Your task to perform on an android device: open app "Cash App" Image 0: 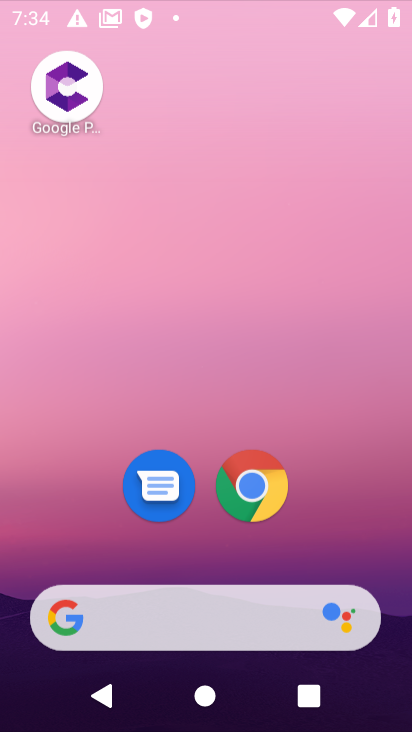
Step 0: press home button
Your task to perform on an android device: open app "Cash App" Image 1: 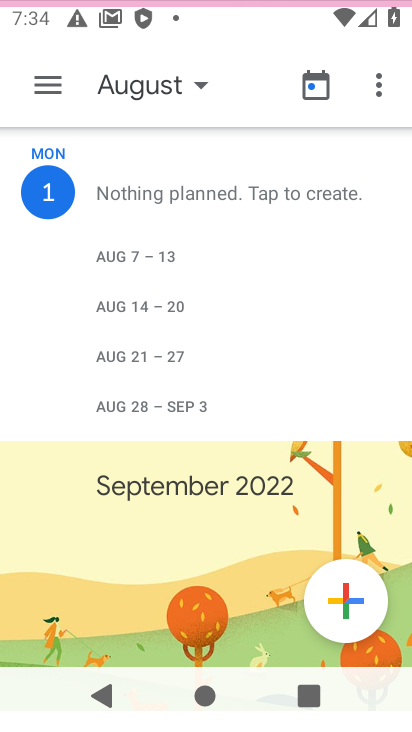
Step 1: drag from (348, 301) to (356, 156)
Your task to perform on an android device: open app "Cash App" Image 2: 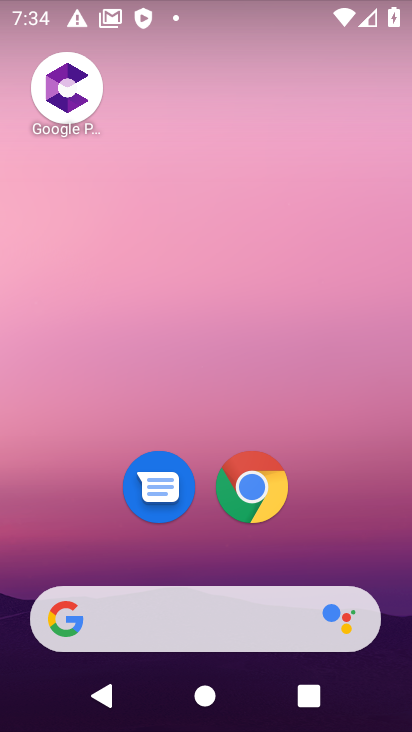
Step 2: drag from (348, 521) to (316, 52)
Your task to perform on an android device: open app "Cash App" Image 3: 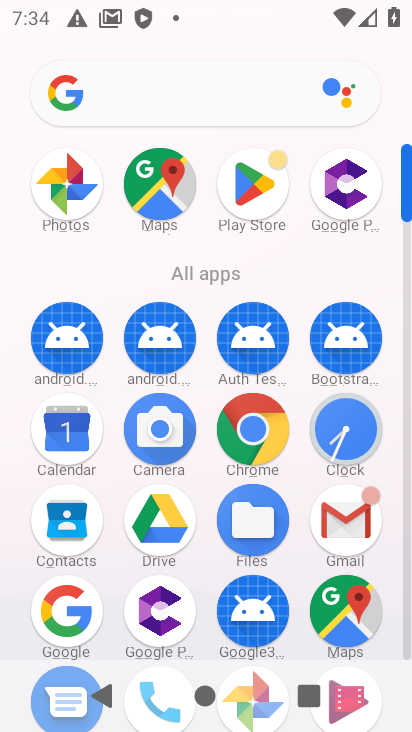
Step 3: drag from (392, 486) to (399, 183)
Your task to perform on an android device: open app "Cash App" Image 4: 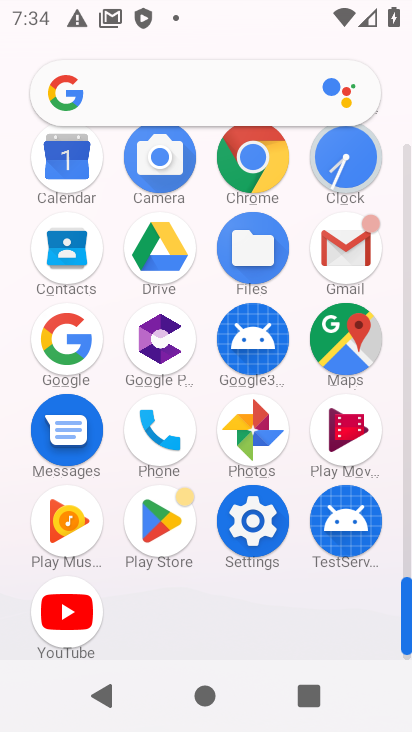
Step 4: click (164, 515)
Your task to perform on an android device: open app "Cash App" Image 5: 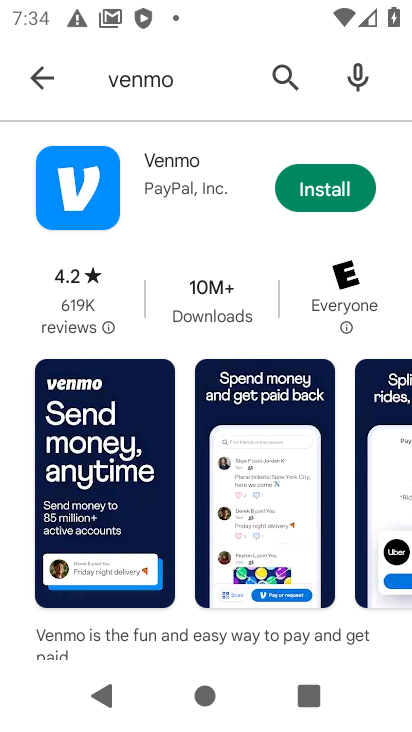
Step 5: click (278, 73)
Your task to perform on an android device: open app "Cash App" Image 6: 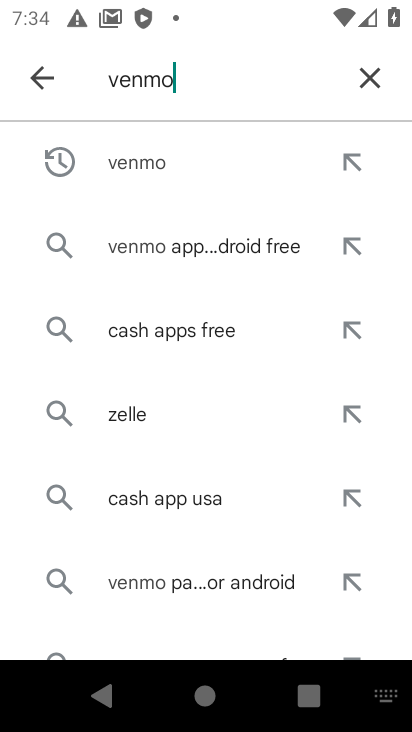
Step 6: click (376, 66)
Your task to perform on an android device: open app "Cash App" Image 7: 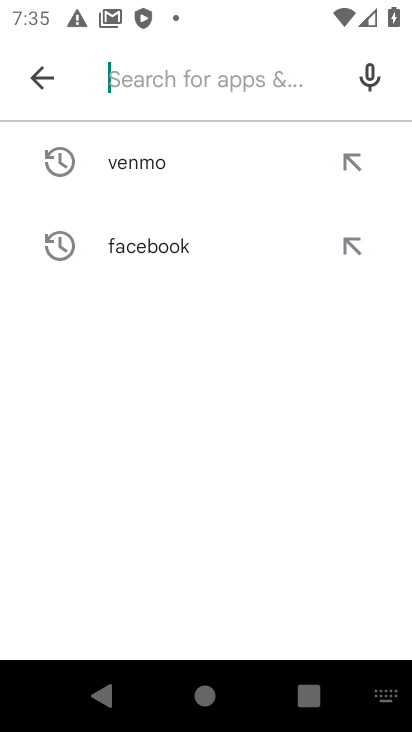
Step 7: type "cash app"
Your task to perform on an android device: open app "Cash App" Image 8: 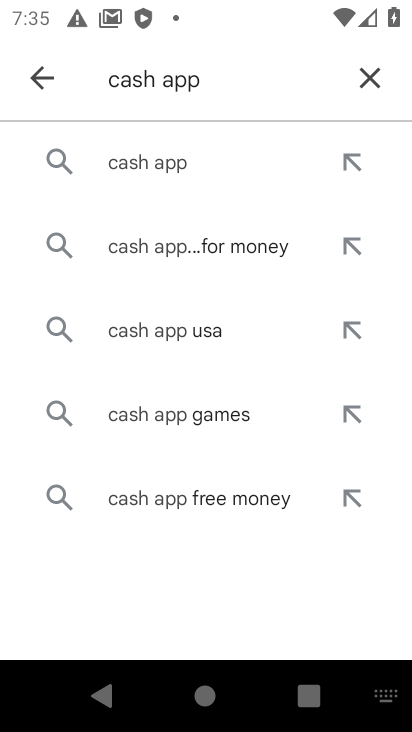
Step 8: click (213, 167)
Your task to perform on an android device: open app "Cash App" Image 9: 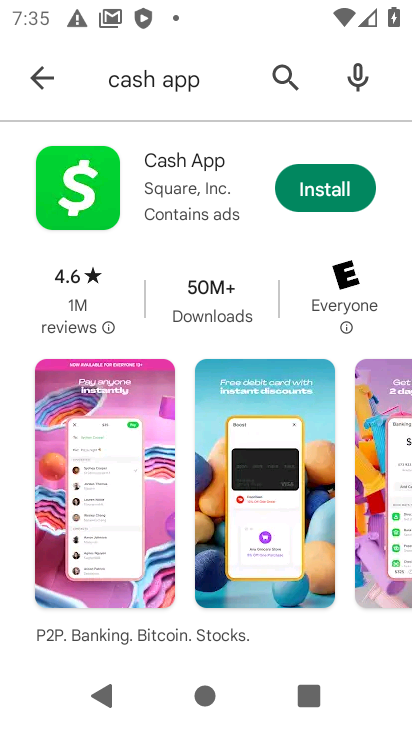
Step 9: task complete